Your task to perform on an android device: Search for seafood restaurants on Google Maps Image 0: 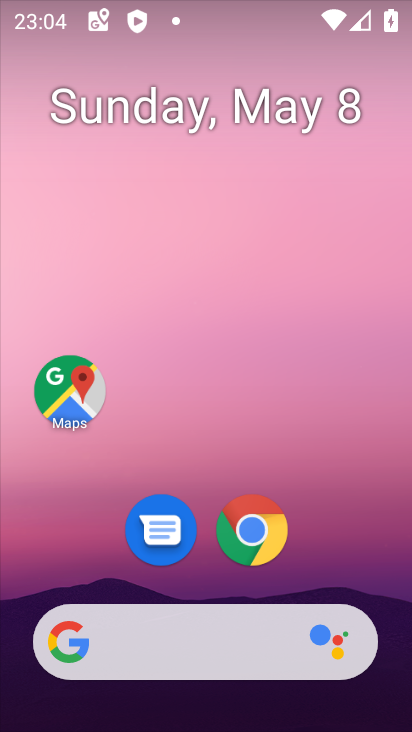
Step 0: drag from (342, 511) to (320, 160)
Your task to perform on an android device: Search for seafood restaurants on Google Maps Image 1: 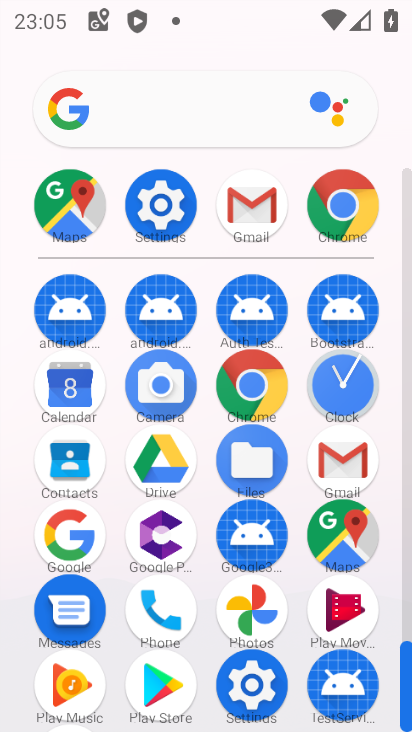
Step 1: click (328, 544)
Your task to perform on an android device: Search for seafood restaurants on Google Maps Image 2: 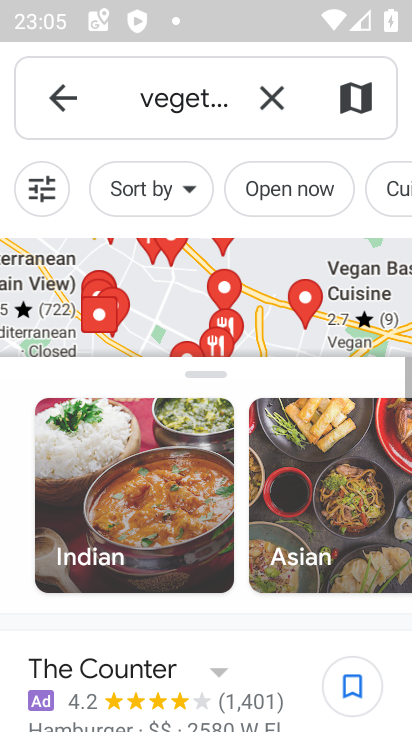
Step 2: click (267, 105)
Your task to perform on an android device: Search for seafood restaurants on Google Maps Image 3: 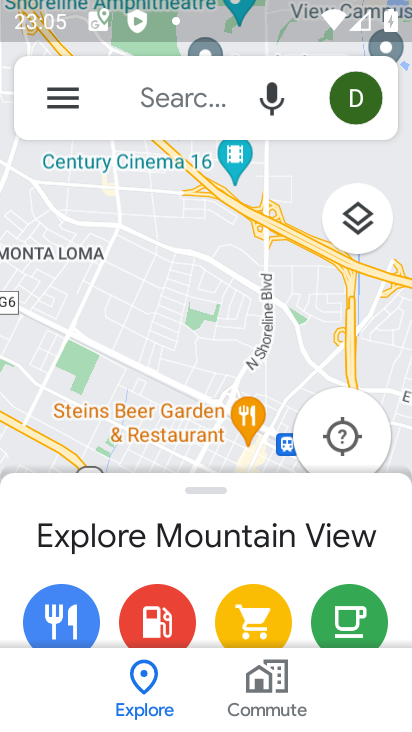
Step 3: click (174, 103)
Your task to perform on an android device: Search for seafood restaurants on Google Maps Image 4: 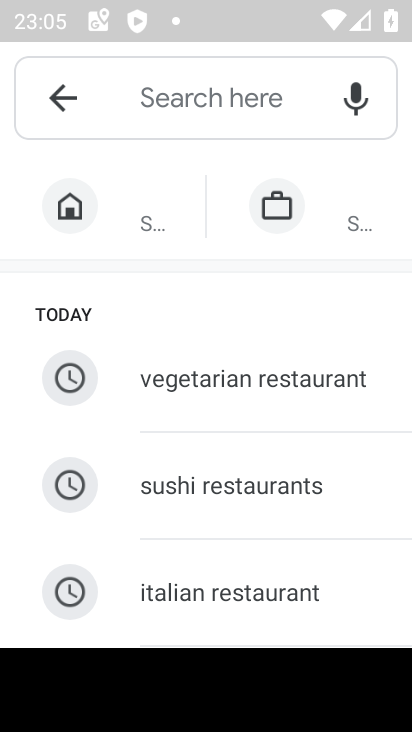
Step 4: type "seafood restaurants "
Your task to perform on an android device: Search for seafood restaurants on Google Maps Image 5: 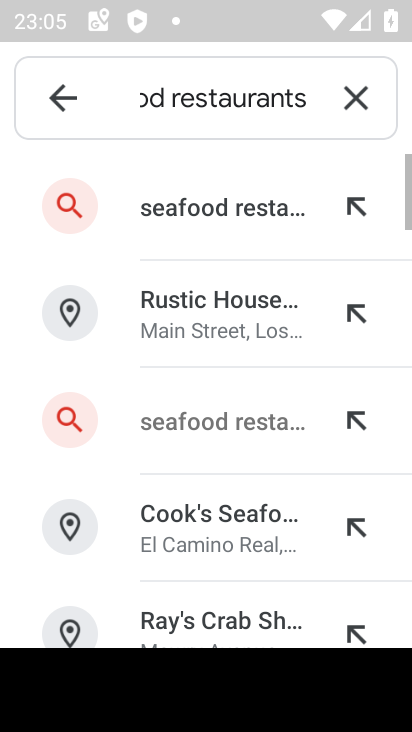
Step 5: click (190, 219)
Your task to perform on an android device: Search for seafood restaurants on Google Maps Image 6: 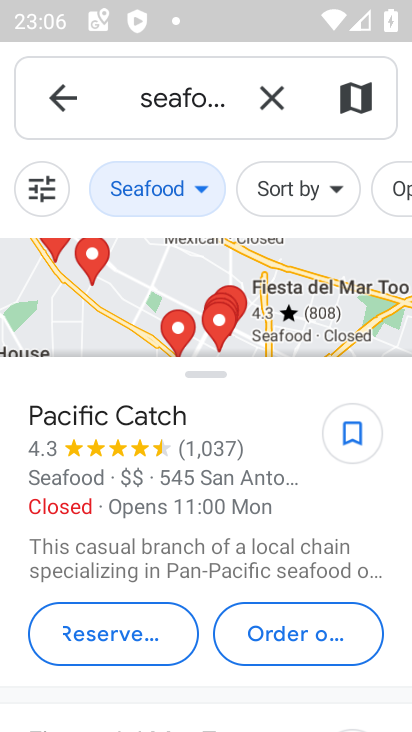
Step 6: task complete